Your task to perform on an android device: Open eBay Image 0: 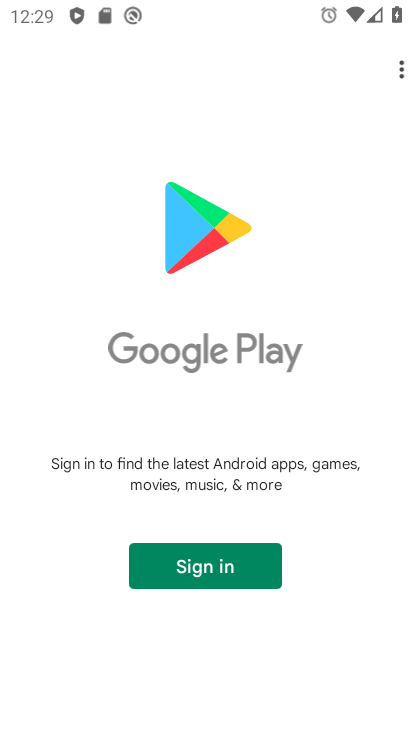
Step 0: press home button
Your task to perform on an android device: Open eBay Image 1: 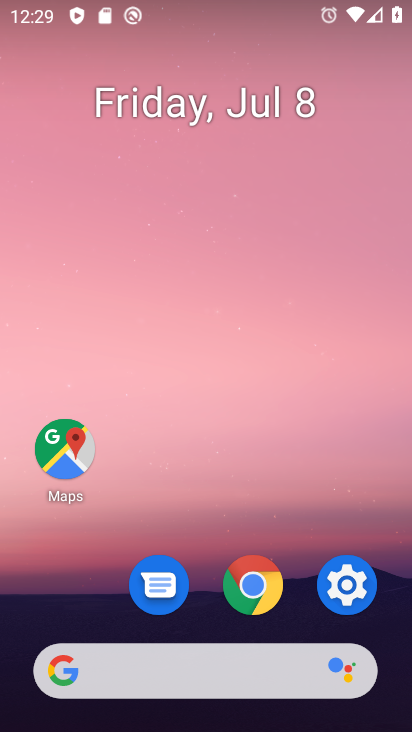
Step 1: click (266, 599)
Your task to perform on an android device: Open eBay Image 2: 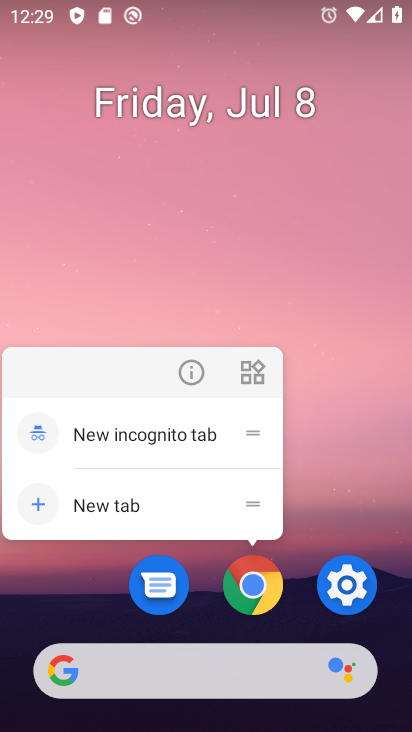
Step 2: click (244, 586)
Your task to perform on an android device: Open eBay Image 3: 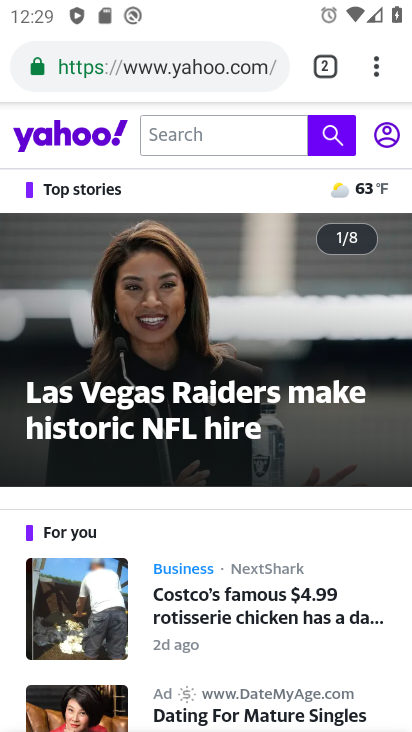
Step 3: click (320, 73)
Your task to perform on an android device: Open eBay Image 4: 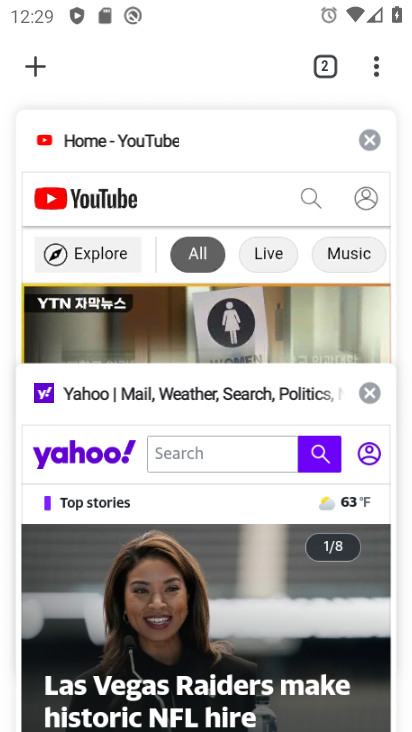
Step 4: click (25, 70)
Your task to perform on an android device: Open eBay Image 5: 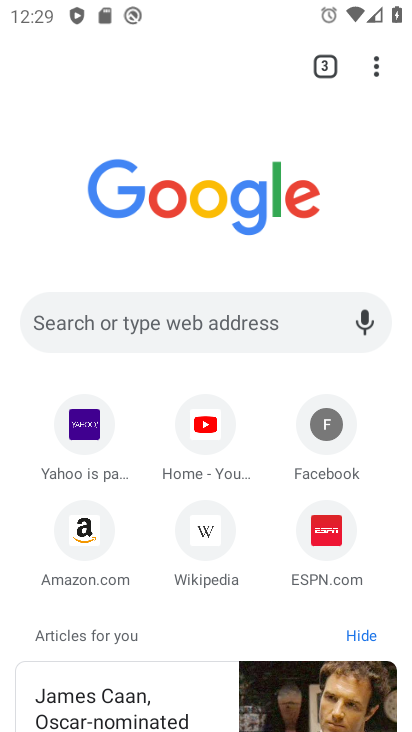
Step 5: click (117, 320)
Your task to perform on an android device: Open eBay Image 6: 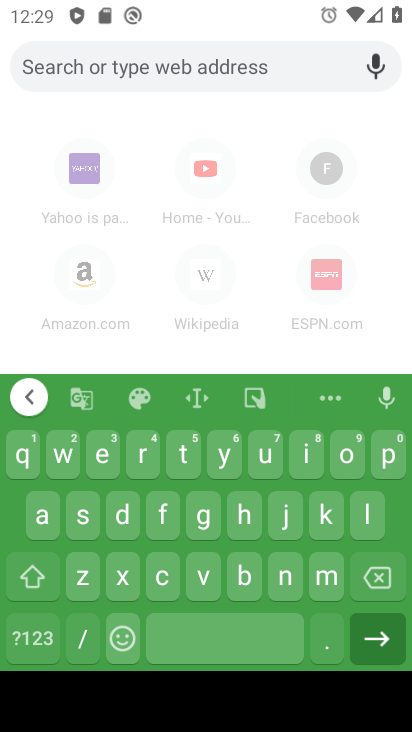
Step 6: click (98, 462)
Your task to perform on an android device: Open eBay Image 7: 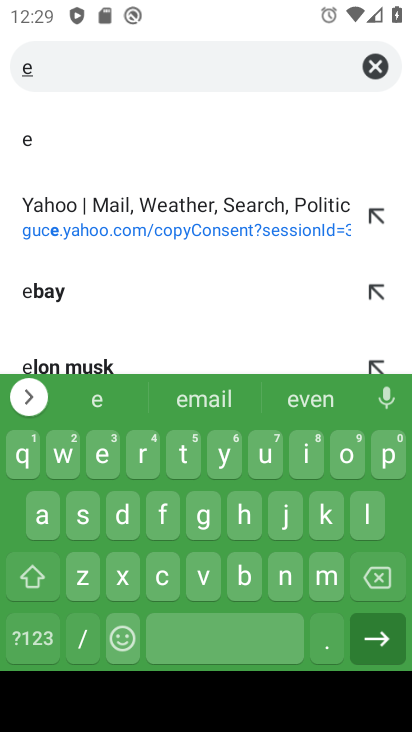
Step 7: click (94, 299)
Your task to perform on an android device: Open eBay Image 8: 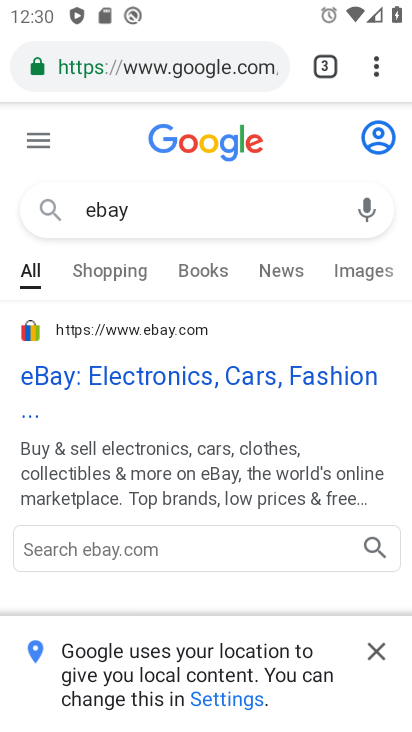
Step 8: click (98, 383)
Your task to perform on an android device: Open eBay Image 9: 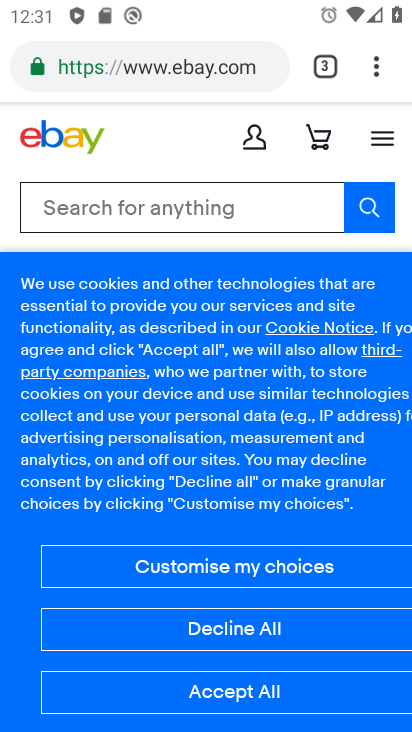
Step 9: task complete